Your task to perform on an android device: Open the Play Movies app and select the watchlist tab. Image 0: 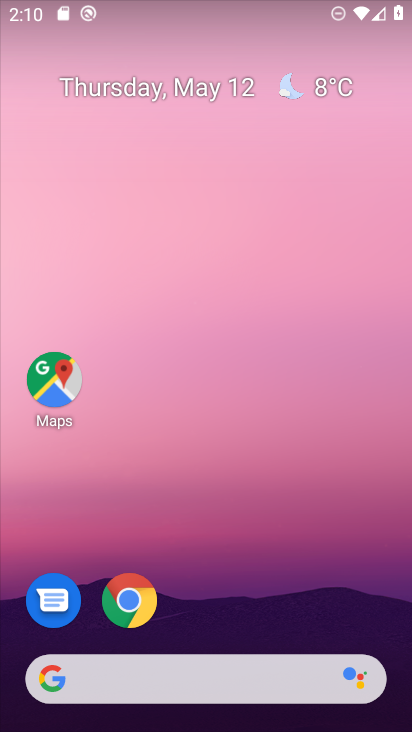
Step 0: drag from (199, 725) to (193, 121)
Your task to perform on an android device: Open the Play Movies app and select the watchlist tab. Image 1: 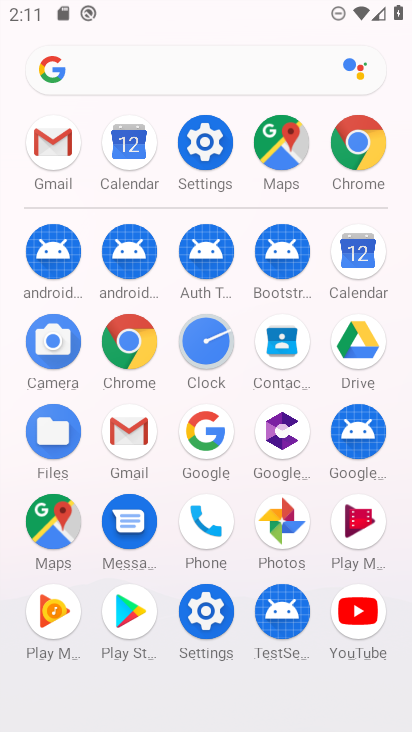
Step 1: click (360, 519)
Your task to perform on an android device: Open the Play Movies app and select the watchlist tab. Image 2: 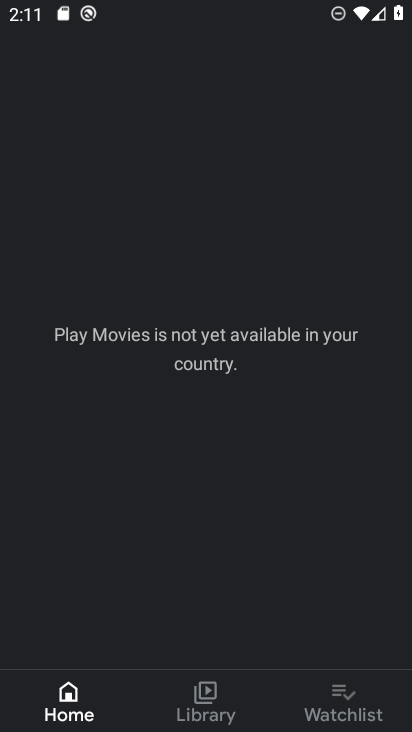
Step 2: click (335, 705)
Your task to perform on an android device: Open the Play Movies app and select the watchlist tab. Image 3: 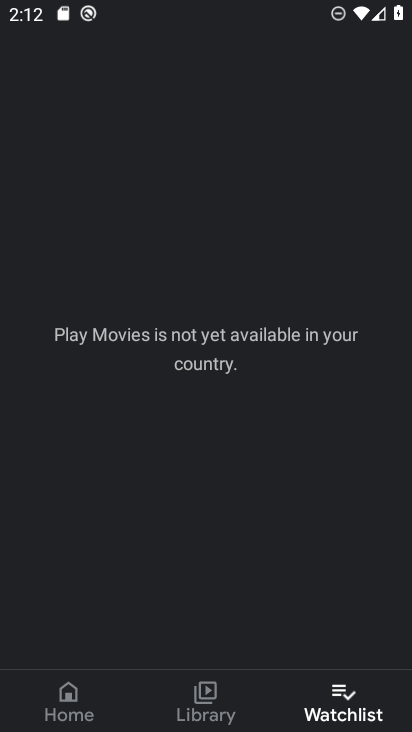
Step 3: task complete